Your task to perform on an android device: Open eBay Image 0: 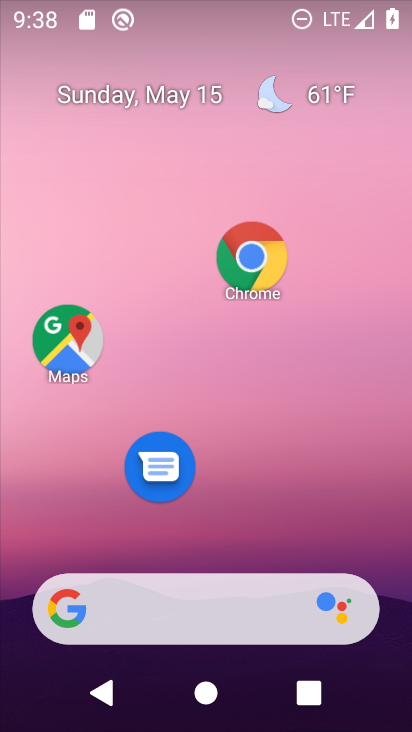
Step 0: click (250, 263)
Your task to perform on an android device: Open eBay Image 1: 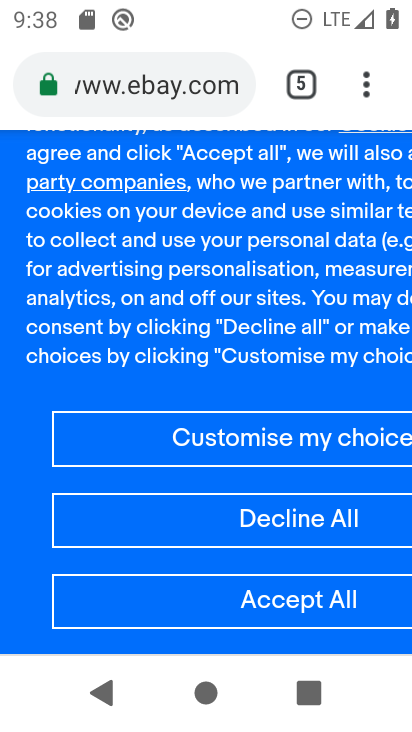
Step 1: task complete